Your task to perform on an android device: star an email in the gmail app Image 0: 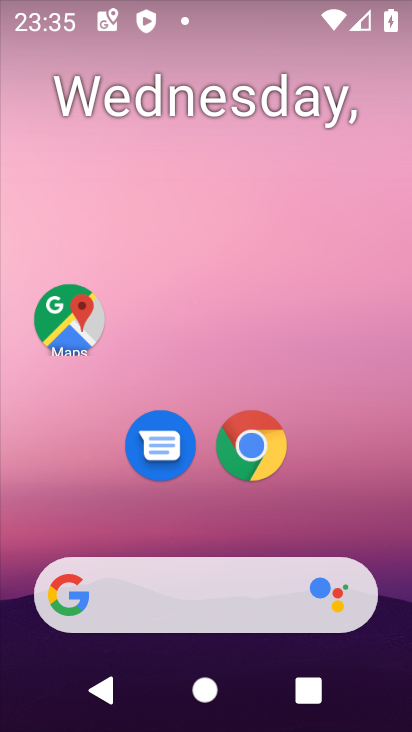
Step 0: drag from (326, 582) to (360, 283)
Your task to perform on an android device: star an email in the gmail app Image 1: 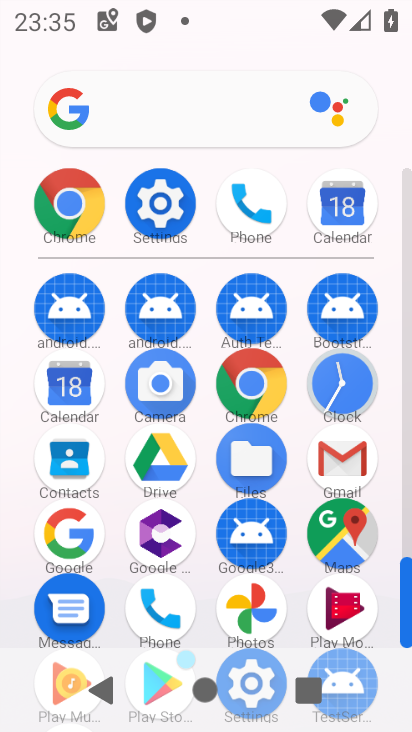
Step 1: click (355, 448)
Your task to perform on an android device: star an email in the gmail app Image 2: 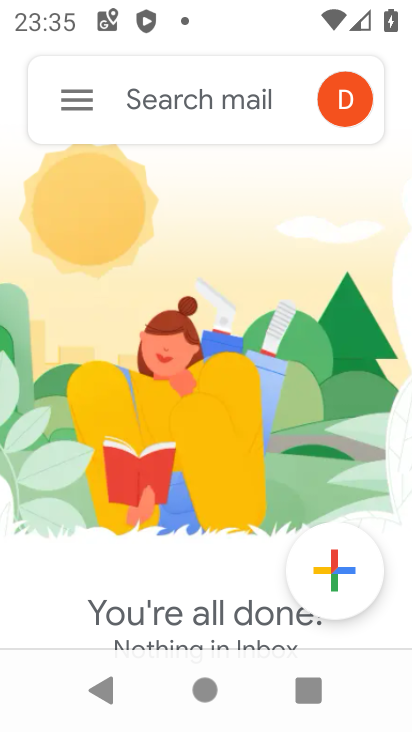
Step 2: click (71, 93)
Your task to perform on an android device: star an email in the gmail app Image 3: 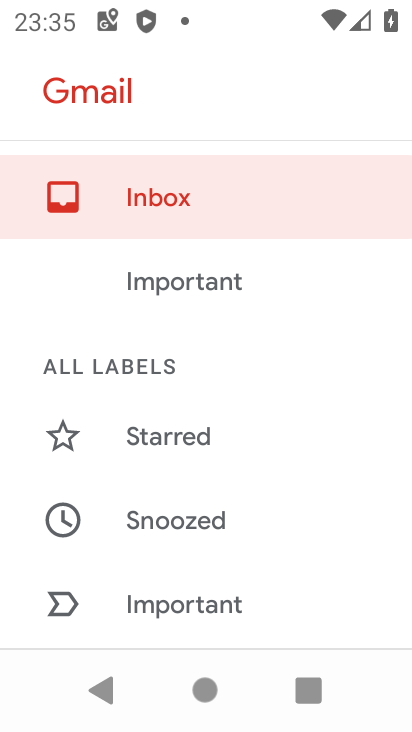
Step 3: click (195, 439)
Your task to perform on an android device: star an email in the gmail app Image 4: 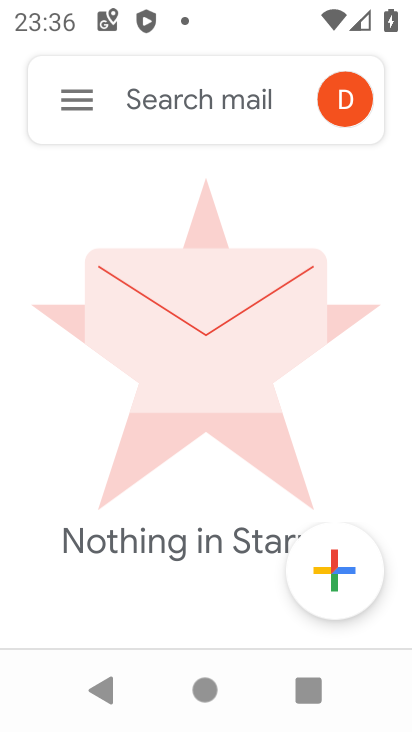
Step 4: task complete